Your task to perform on an android device: Show me productivity apps on the Play Store Image 0: 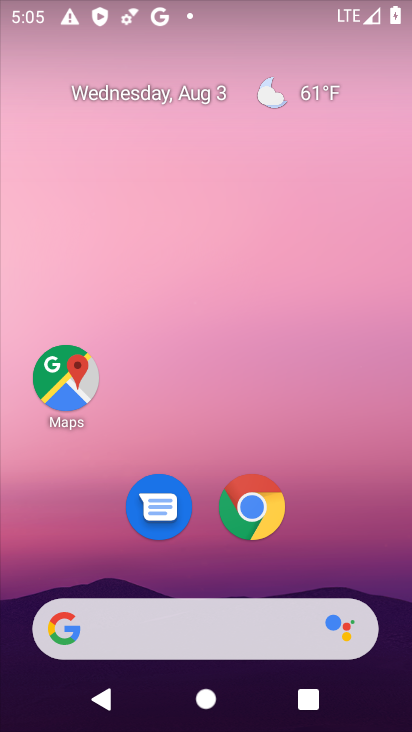
Step 0: drag from (338, 582) to (266, 93)
Your task to perform on an android device: Show me productivity apps on the Play Store Image 1: 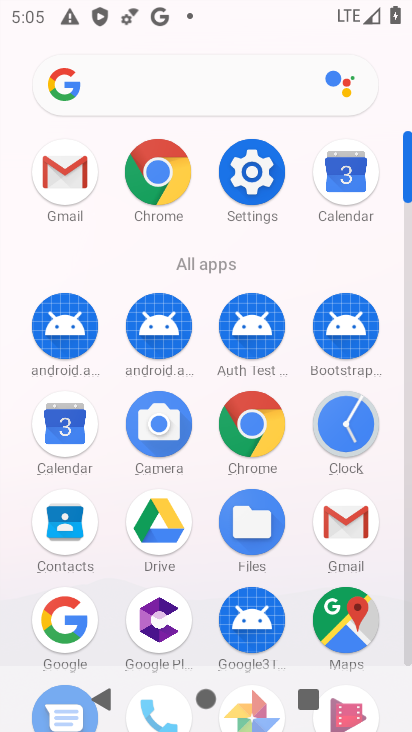
Step 1: drag from (208, 595) to (273, 210)
Your task to perform on an android device: Show me productivity apps on the Play Store Image 2: 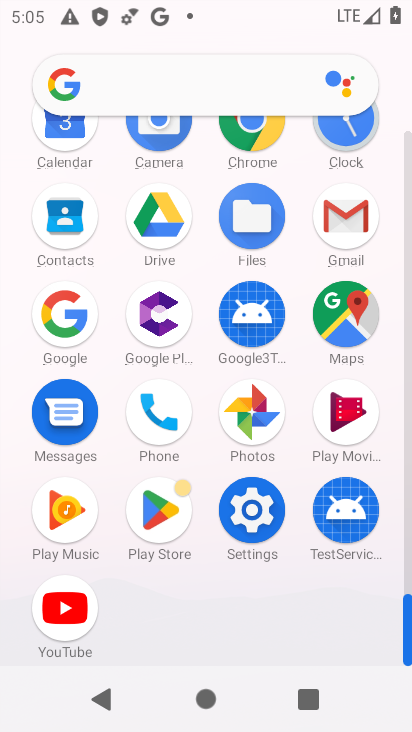
Step 2: click (165, 528)
Your task to perform on an android device: Show me productivity apps on the Play Store Image 3: 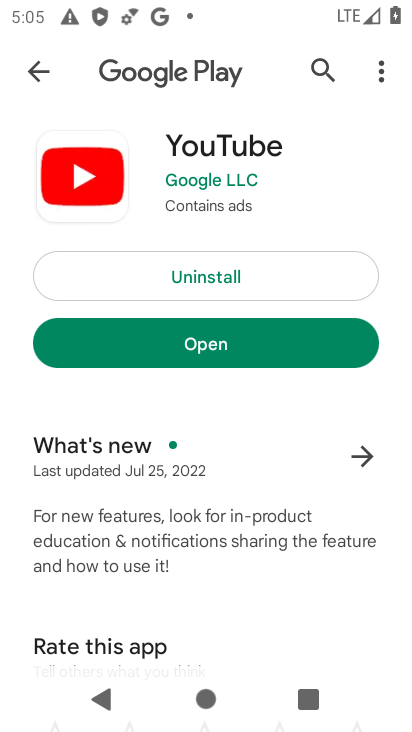
Step 3: click (53, 61)
Your task to perform on an android device: Show me productivity apps on the Play Store Image 4: 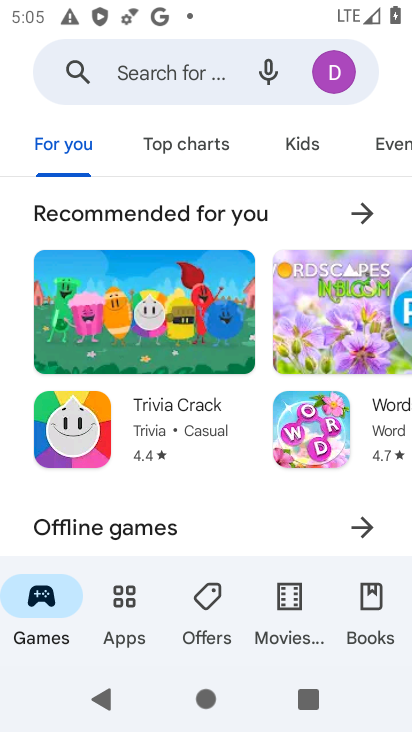
Step 4: click (125, 617)
Your task to perform on an android device: Show me productivity apps on the Play Store Image 5: 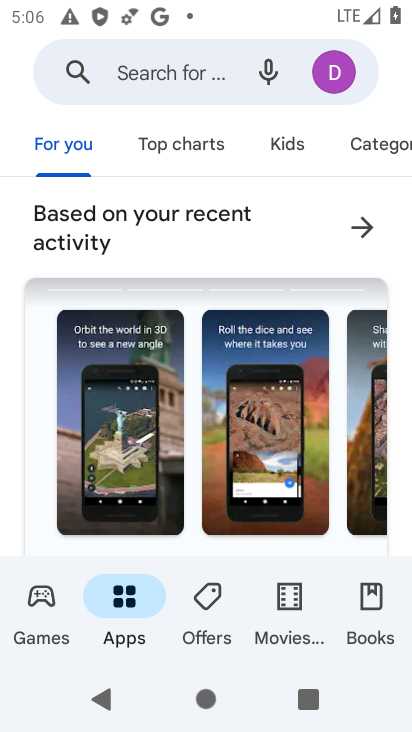
Step 5: task complete